Your task to perform on an android device: move an email to a new category in the gmail app Image 0: 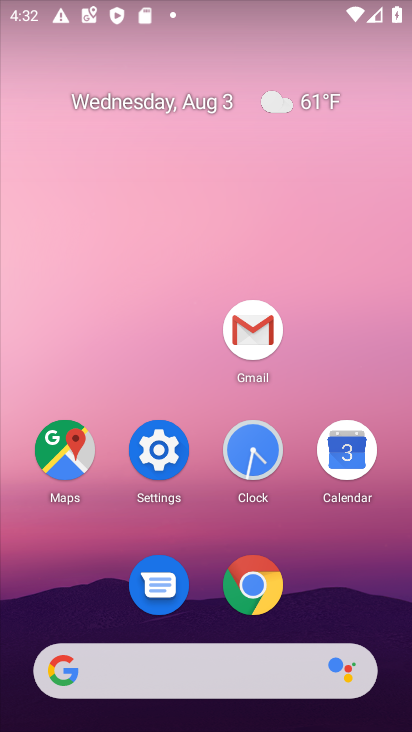
Step 0: click (337, 459)
Your task to perform on an android device: move an email to a new category in the gmail app Image 1: 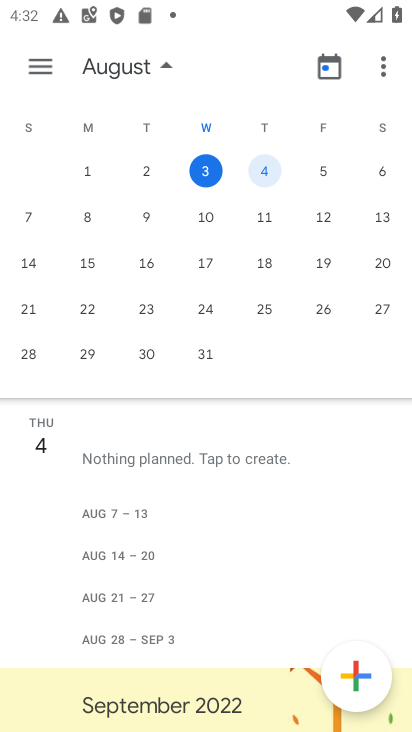
Step 1: press home button
Your task to perform on an android device: move an email to a new category in the gmail app Image 2: 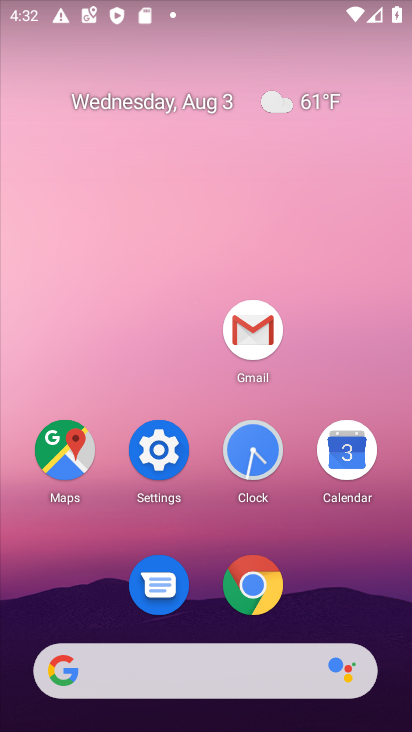
Step 2: click (247, 347)
Your task to perform on an android device: move an email to a new category in the gmail app Image 3: 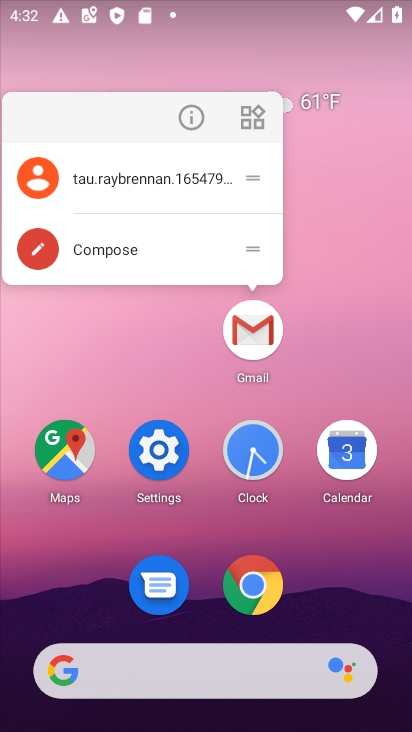
Step 3: click (261, 334)
Your task to perform on an android device: move an email to a new category in the gmail app Image 4: 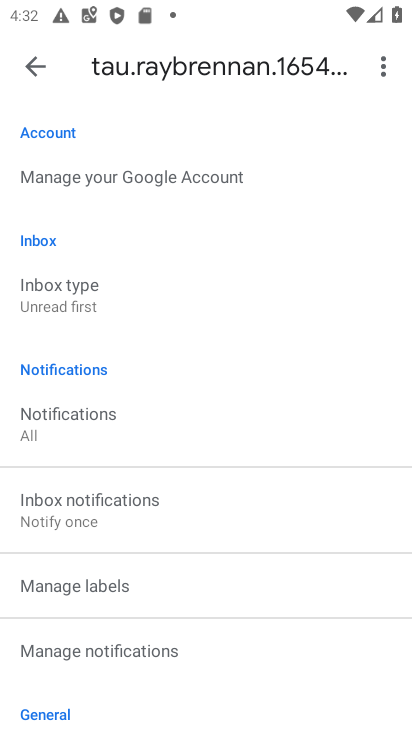
Step 4: task complete